Your task to perform on an android device: find which apps use the phone's location Image 0: 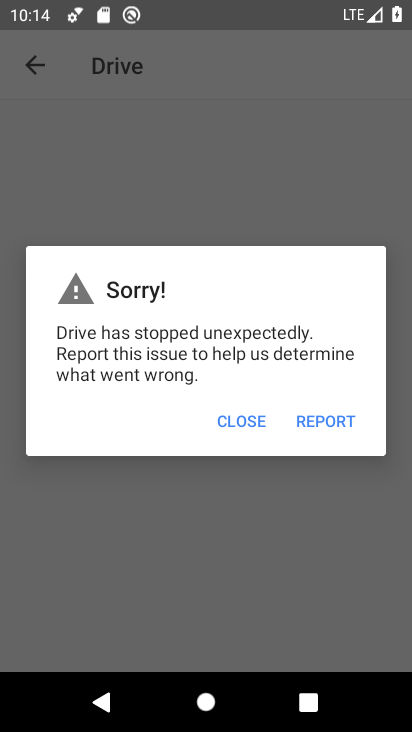
Step 0: press home button
Your task to perform on an android device: find which apps use the phone's location Image 1: 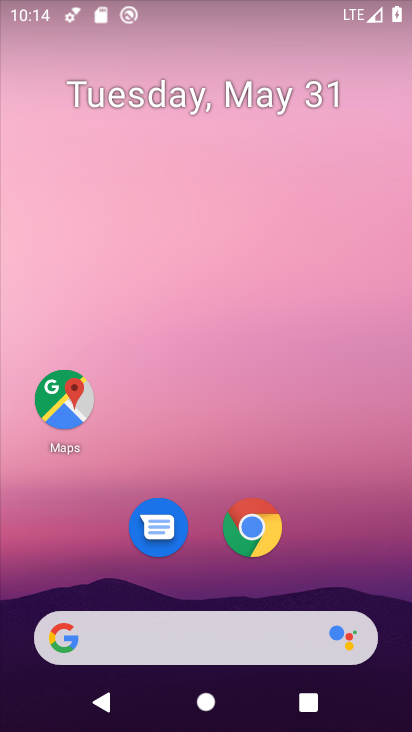
Step 1: drag from (316, 493) to (336, 32)
Your task to perform on an android device: find which apps use the phone's location Image 2: 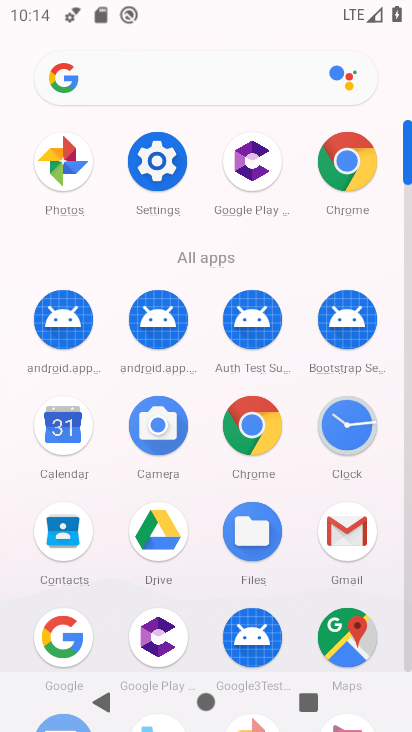
Step 2: click (155, 172)
Your task to perform on an android device: find which apps use the phone's location Image 3: 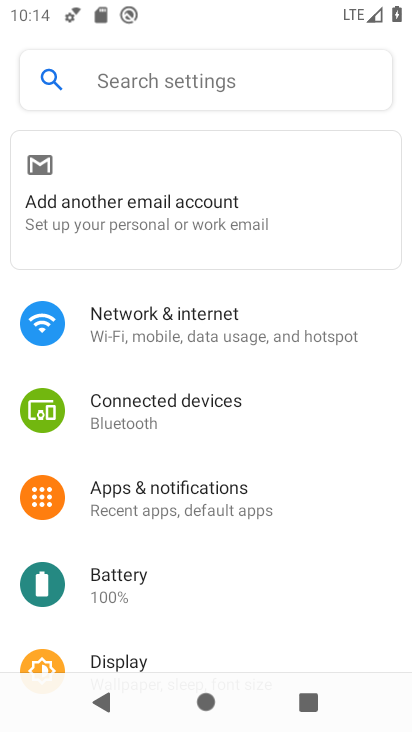
Step 3: drag from (359, 623) to (321, 100)
Your task to perform on an android device: find which apps use the phone's location Image 4: 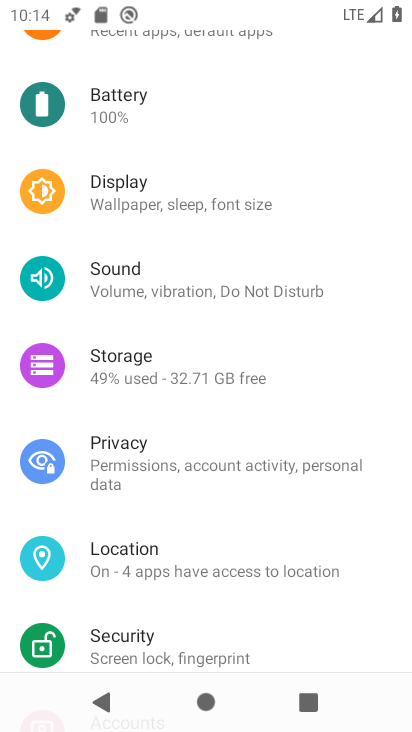
Step 4: click (119, 557)
Your task to perform on an android device: find which apps use the phone's location Image 5: 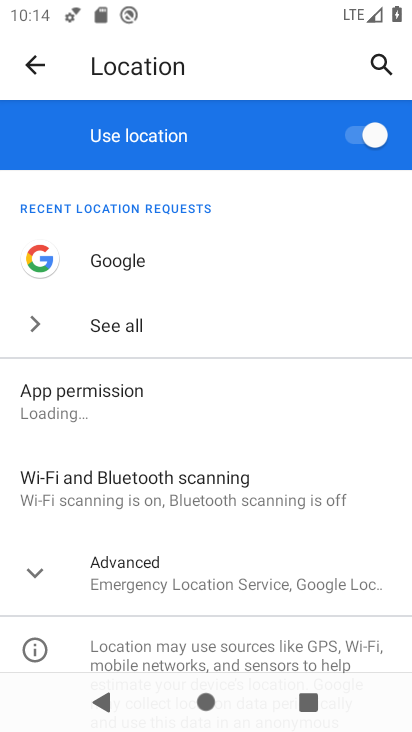
Step 5: click (74, 407)
Your task to perform on an android device: find which apps use the phone's location Image 6: 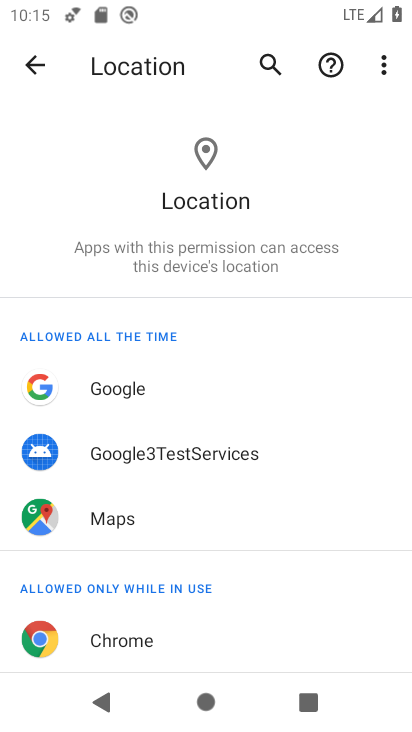
Step 6: task complete